Your task to perform on an android device: snooze an email in the gmail app Image 0: 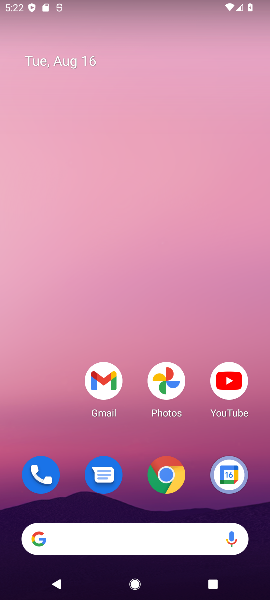
Step 0: drag from (130, 499) to (107, 44)
Your task to perform on an android device: snooze an email in the gmail app Image 1: 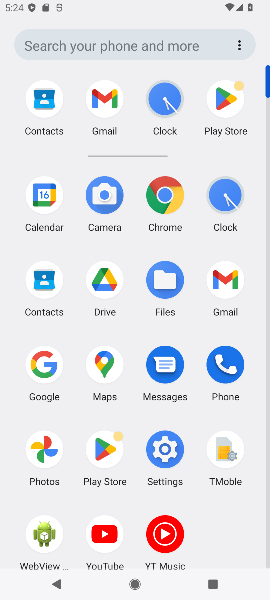
Step 1: click (220, 284)
Your task to perform on an android device: snooze an email in the gmail app Image 2: 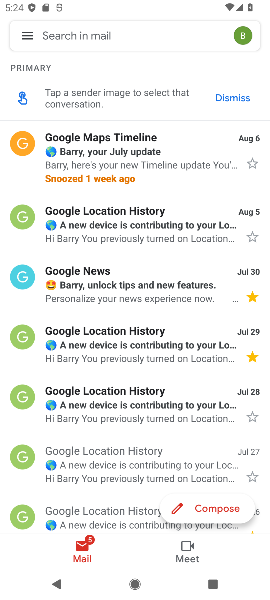
Step 2: click (119, 149)
Your task to perform on an android device: snooze an email in the gmail app Image 3: 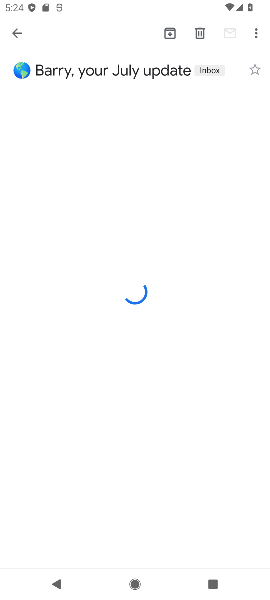
Step 3: click (256, 35)
Your task to perform on an android device: snooze an email in the gmail app Image 4: 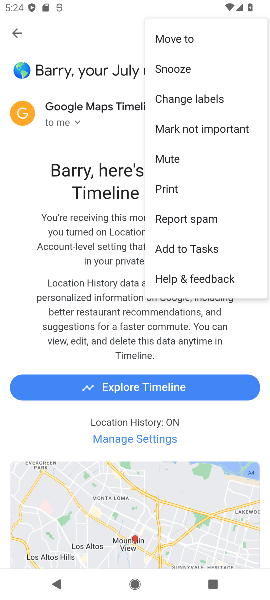
Step 4: click (180, 74)
Your task to perform on an android device: snooze an email in the gmail app Image 5: 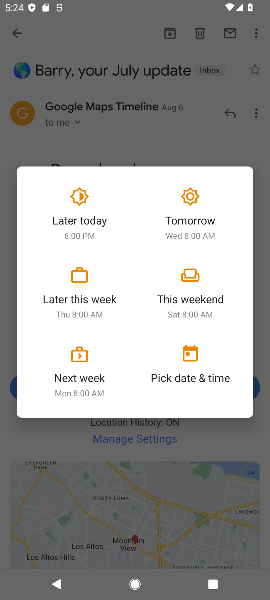
Step 5: click (186, 217)
Your task to perform on an android device: snooze an email in the gmail app Image 6: 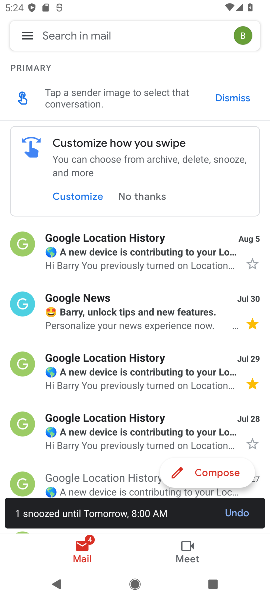
Step 6: task complete